Your task to perform on an android device: choose inbox layout in the gmail app Image 0: 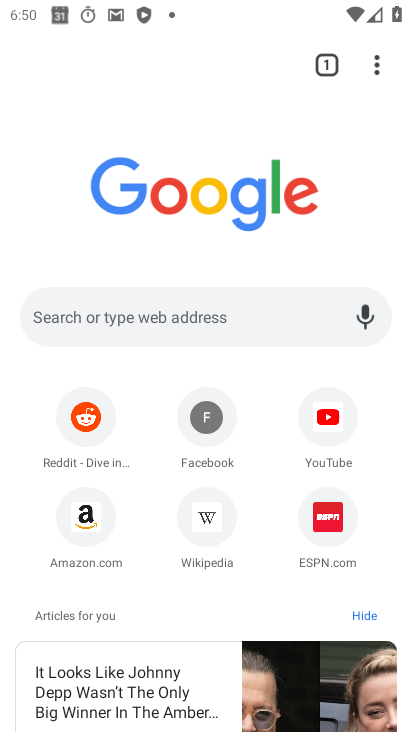
Step 0: press home button
Your task to perform on an android device: choose inbox layout in the gmail app Image 1: 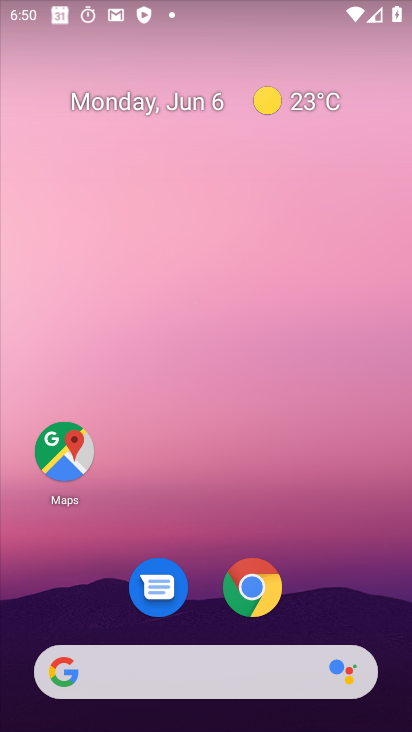
Step 1: drag from (385, 670) to (275, 62)
Your task to perform on an android device: choose inbox layout in the gmail app Image 2: 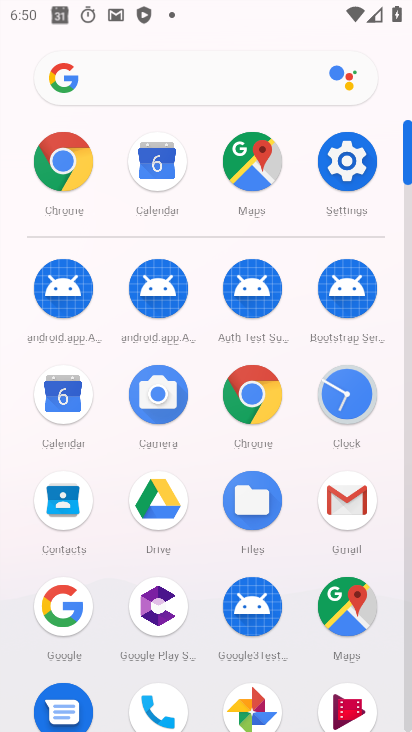
Step 2: click (341, 511)
Your task to perform on an android device: choose inbox layout in the gmail app Image 3: 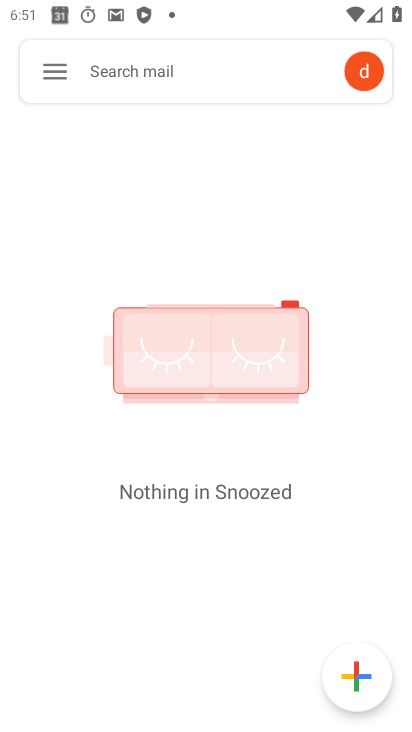
Step 3: task complete